Your task to perform on an android device: Open the Play Movies app and select the watchlist tab. Image 0: 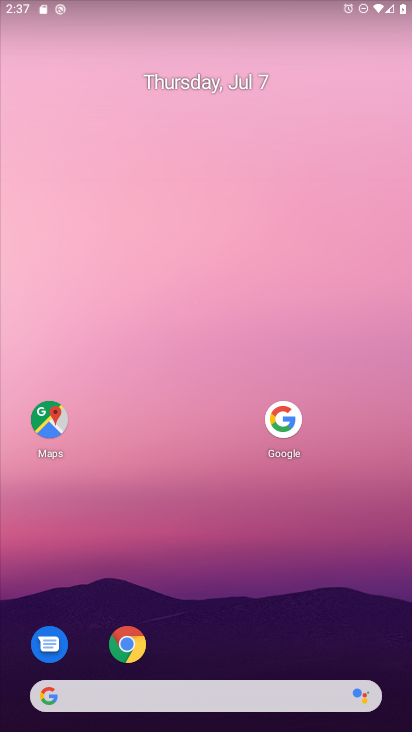
Step 0: drag from (209, 670) to (335, 140)
Your task to perform on an android device: Open the Play Movies app and select the watchlist tab. Image 1: 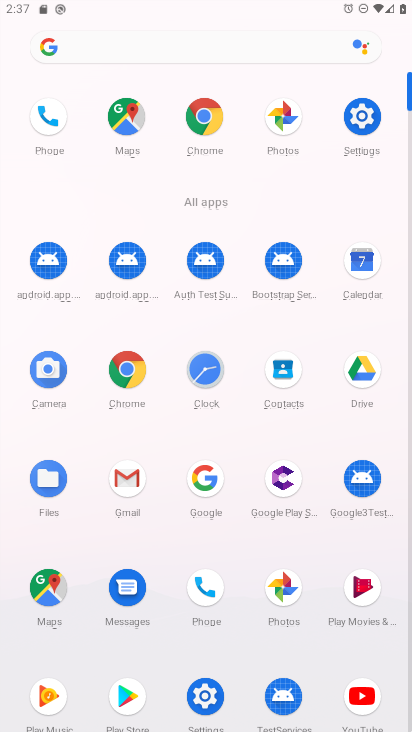
Step 1: click (367, 588)
Your task to perform on an android device: Open the Play Movies app and select the watchlist tab. Image 2: 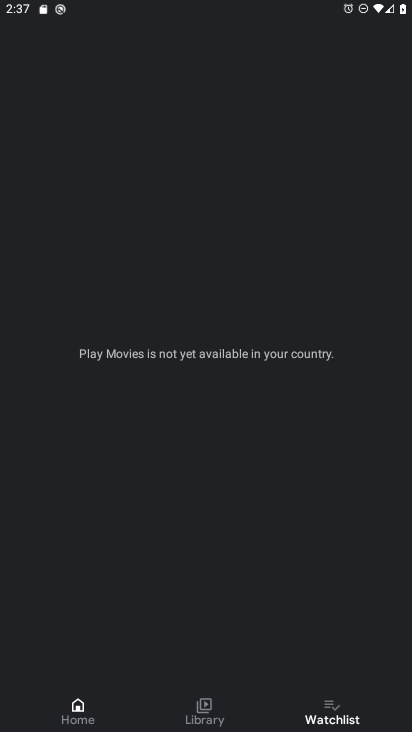
Step 2: click (335, 710)
Your task to perform on an android device: Open the Play Movies app and select the watchlist tab. Image 3: 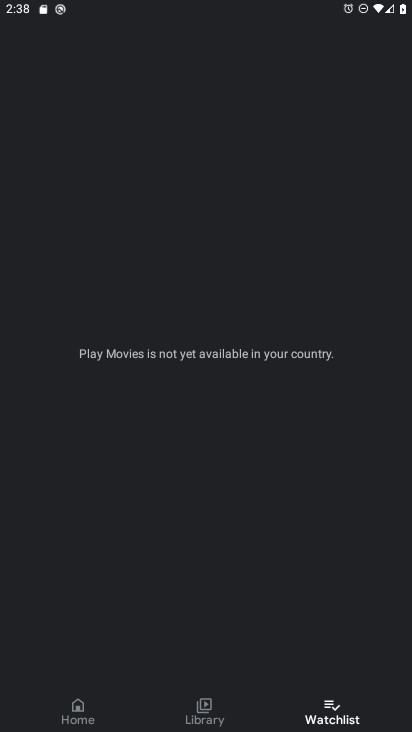
Step 3: task complete